Your task to perform on an android device: See recent photos Image 0: 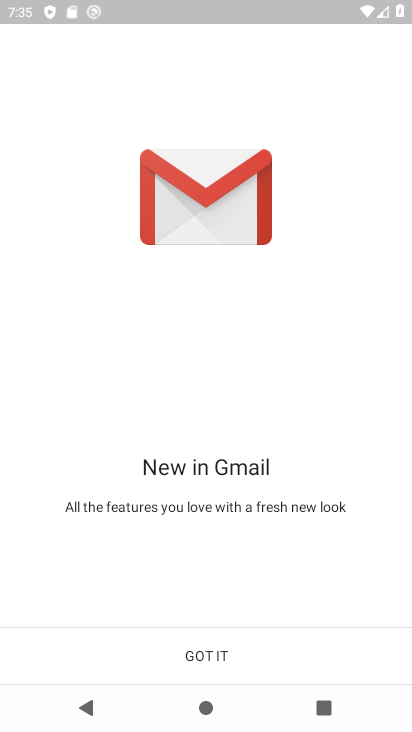
Step 0: click (199, 650)
Your task to perform on an android device: See recent photos Image 1: 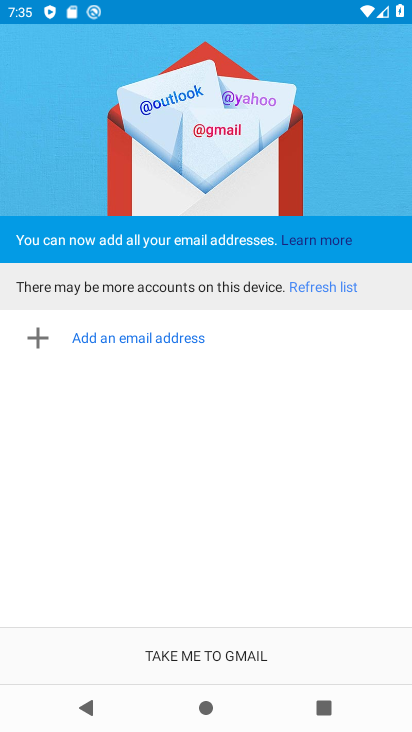
Step 1: click (199, 650)
Your task to perform on an android device: See recent photos Image 2: 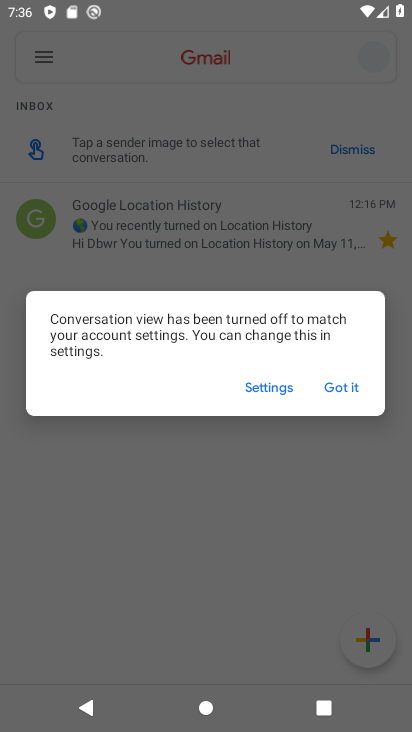
Step 2: click (339, 391)
Your task to perform on an android device: See recent photos Image 3: 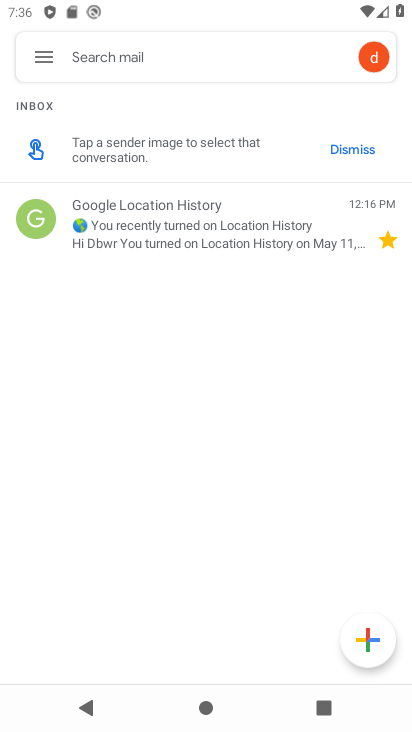
Step 3: click (48, 54)
Your task to perform on an android device: See recent photos Image 4: 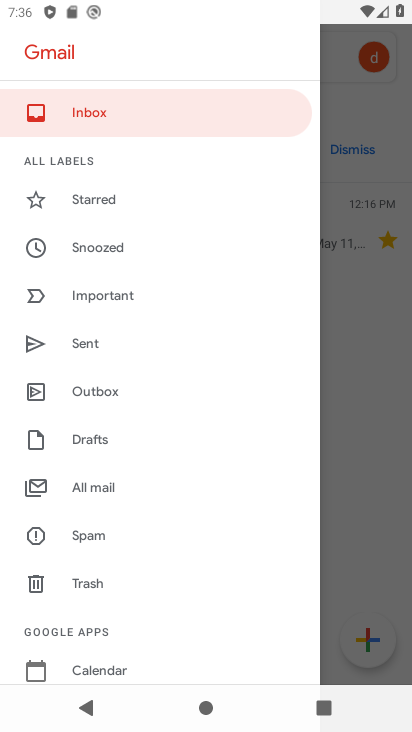
Step 4: drag from (169, 576) to (213, 271)
Your task to perform on an android device: See recent photos Image 5: 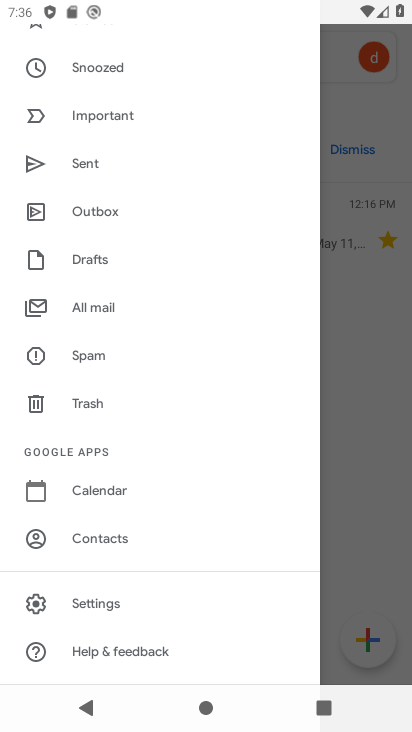
Step 5: click (91, 607)
Your task to perform on an android device: See recent photos Image 6: 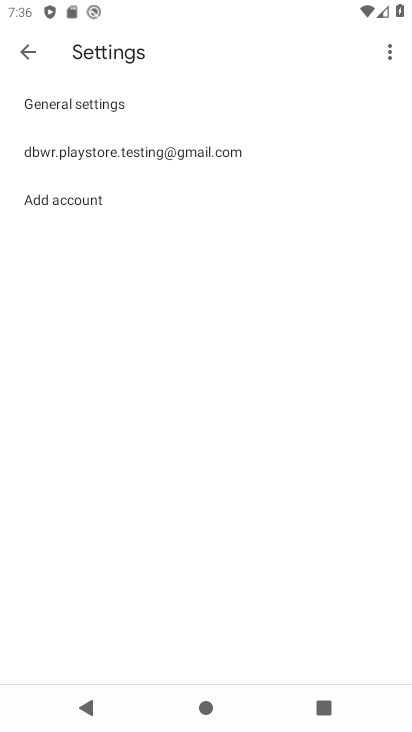
Step 6: click (120, 159)
Your task to perform on an android device: See recent photos Image 7: 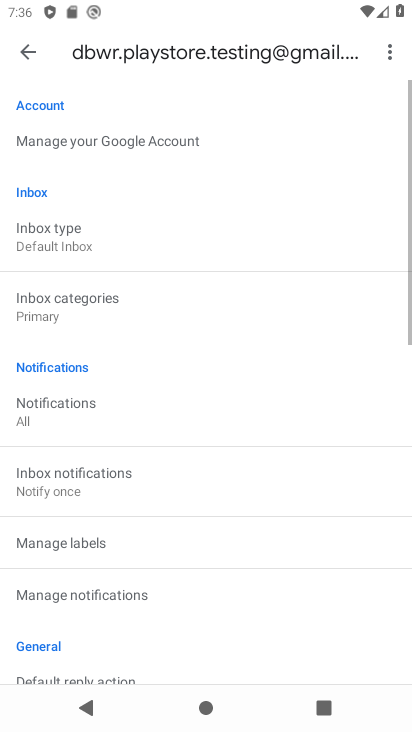
Step 7: drag from (163, 508) to (206, 278)
Your task to perform on an android device: See recent photos Image 8: 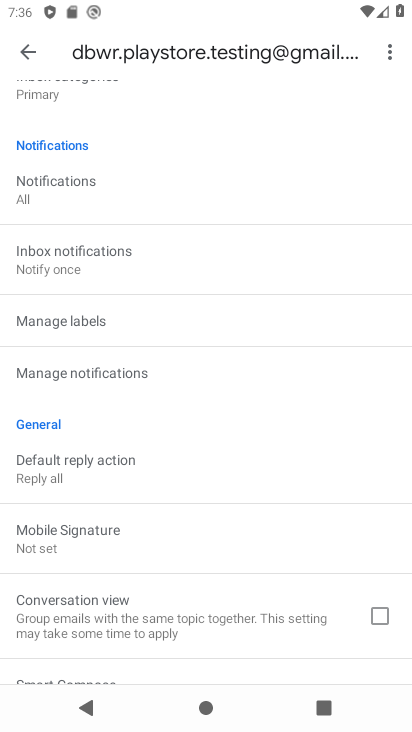
Step 8: drag from (199, 565) to (211, 302)
Your task to perform on an android device: See recent photos Image 9: 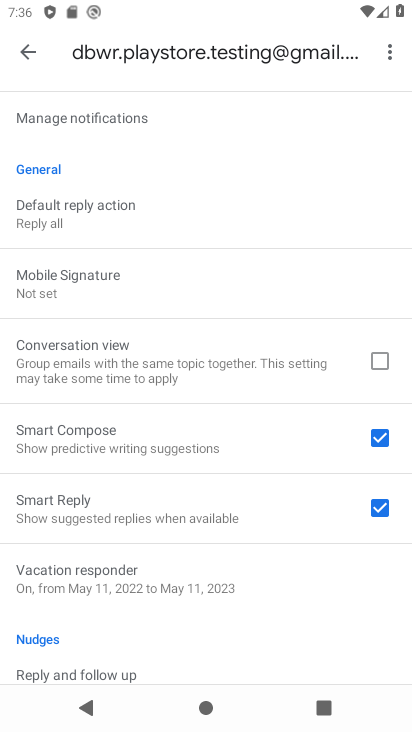
Step 9: press home button
Your task to perform on an android device: See recent photos Image 10: 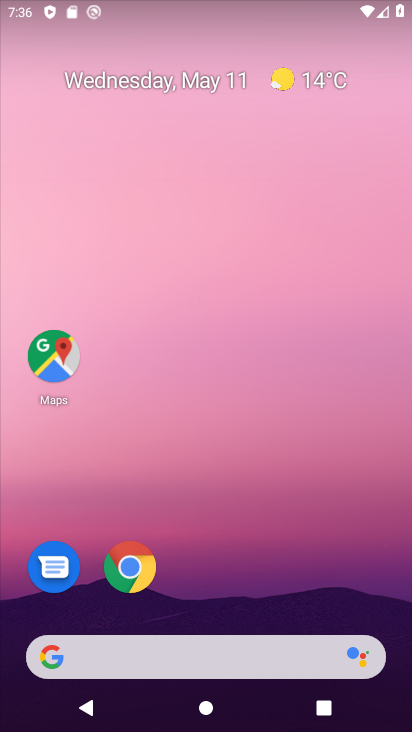
Step 10: drag from (257, 602) to (265, 203)
Your task to perform on an android device: See recent photos Image 11: 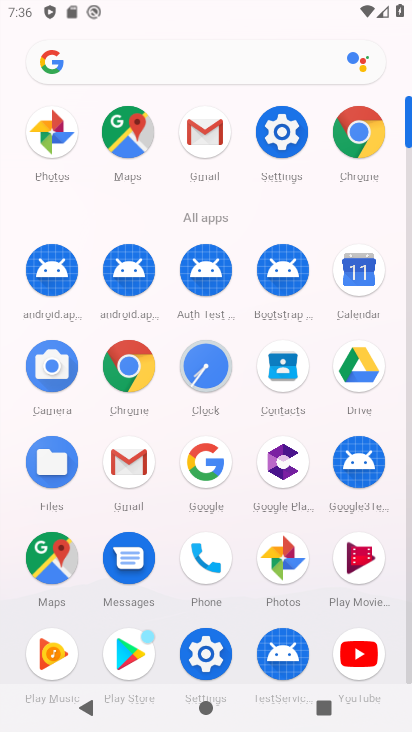
Step 11: click (54, 152)
Your task to perform on an android device: See recent photos Image 12: 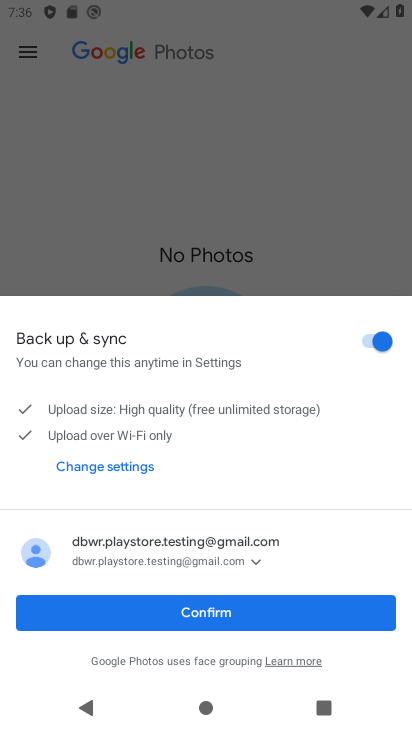
Step 12: click (202, 621)
Your task to perform on an android device: See recent photos Image 13: 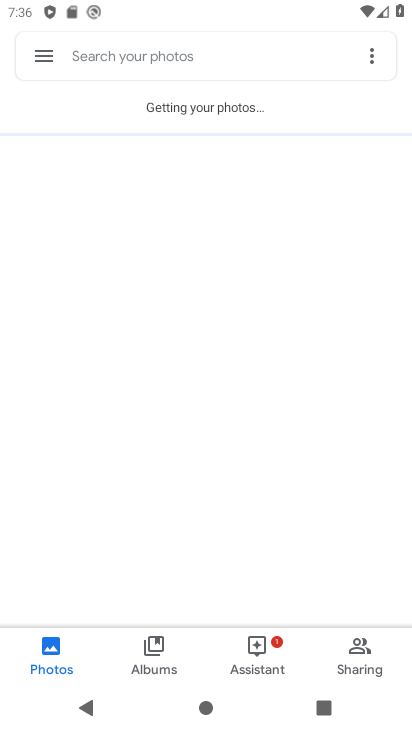
Step 13: click (144, 56)
Your task to perform on an android device: See recent photos Image 14: 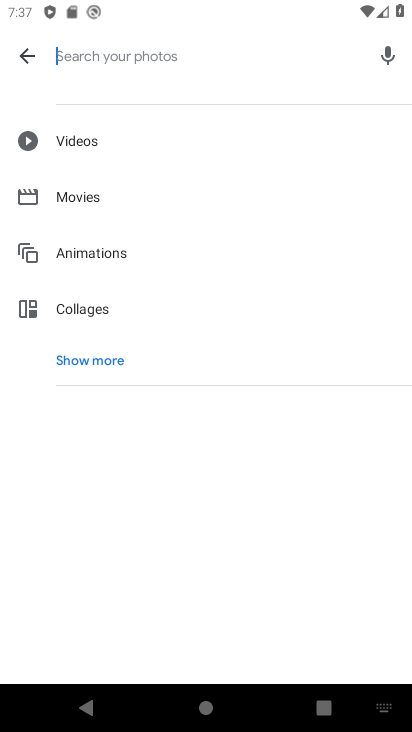
Step 14: click (32, 54)
Your task to perform on an android device: See recent photos Image 15: 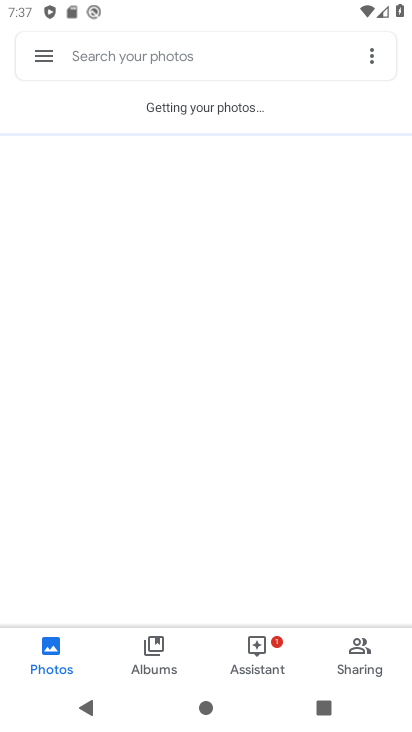
Step 15: task complete